Your task to perform on an android device: Search for Mexican restaurants on Maps Image 0: 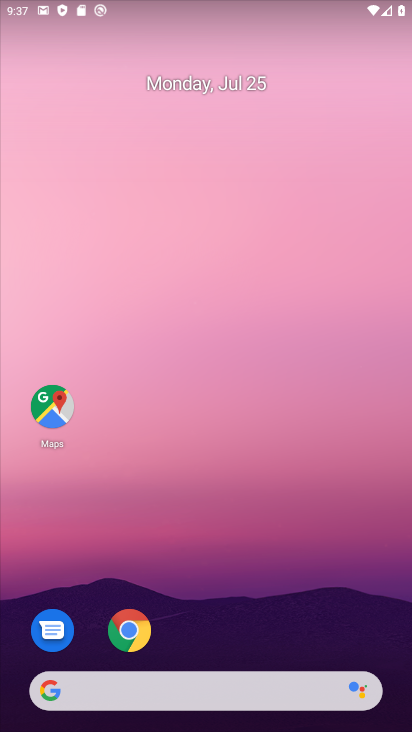
Step 0: click (49, 406)
Your task to perform on an android device: Search for Mexican restaurants on Maps Image 1: 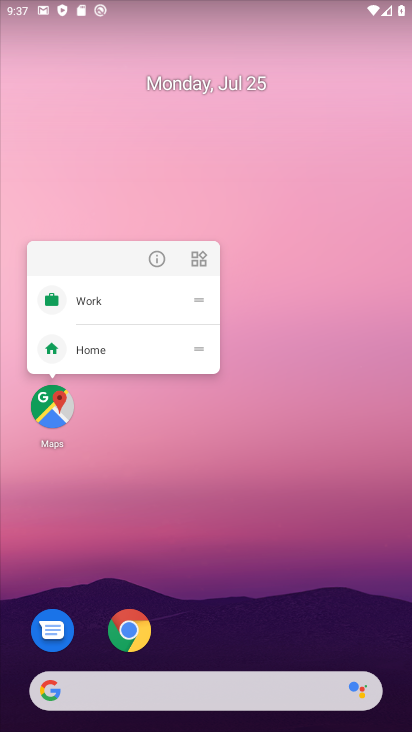
Step 1: click (49, 406)
Your task to perform on an android device: Search for Mexican restaurants on Maps Image 2: 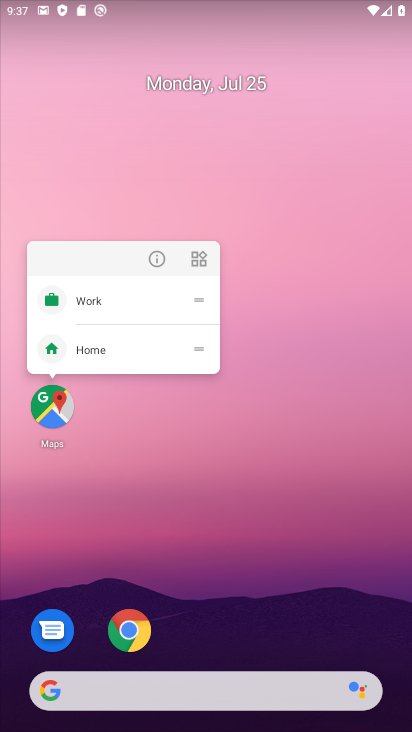
Step 2: click (49, 406)
Your task to perform on an android device: Search for Mexican restaurants on Maps Image 3: 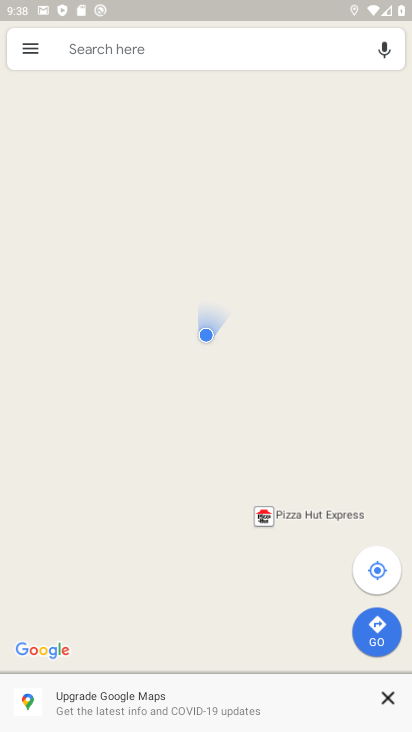
Step 3: type "Mexican restaurants "
Your task to perform on an android device: Search for Mexican restaurants on Maps Image 4: 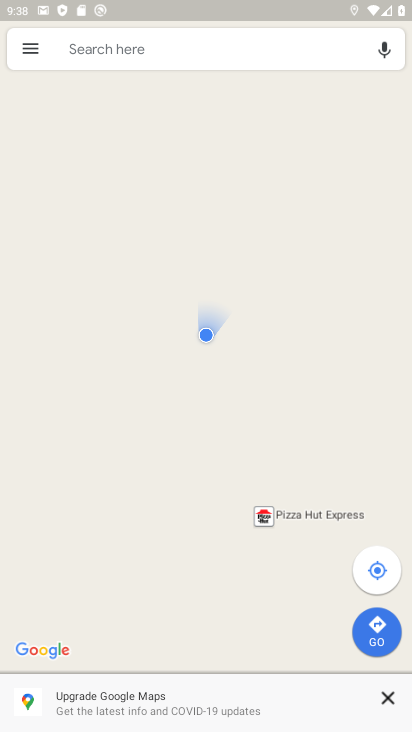
Step 4: click (118, 48)
Your task to perform on an android device: Search for Mexican restaurants on Maps Image 5: 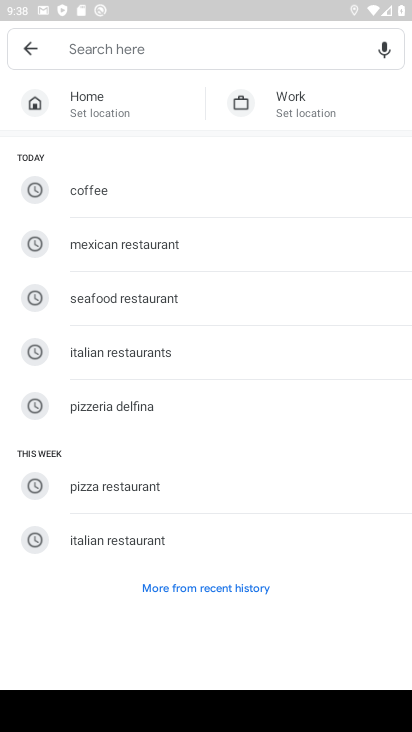
Step 5: click (147, 247)
Your task to perform on an android device: Search for Mexican restaurants on Maps Image 6: 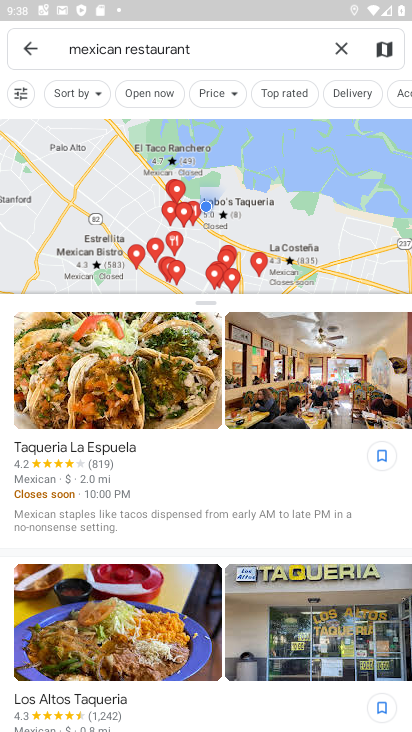
Step 6: task complete